Your task to perform on an android device: Open battery settings Image 0: 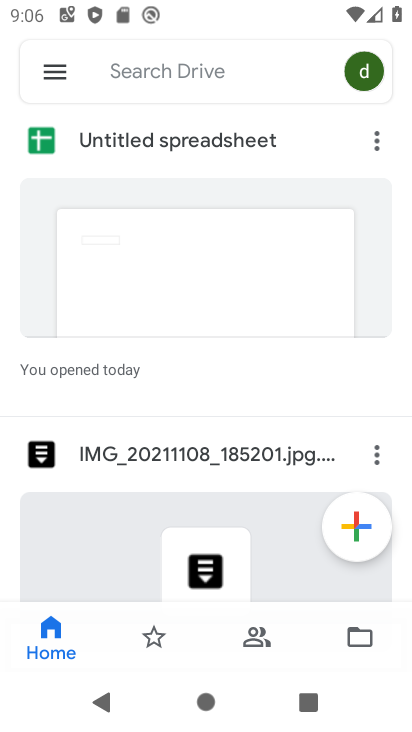
Step 0: press home button
Your task to perform on an android device: Open battery settings Image 1: 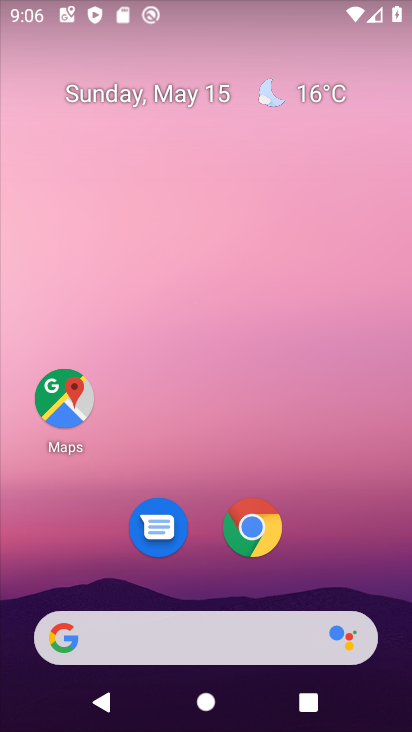
Step 1: drag from (359, 586) to (359, 16)
Your task to perform on an android device: Open battery settings Image 2: 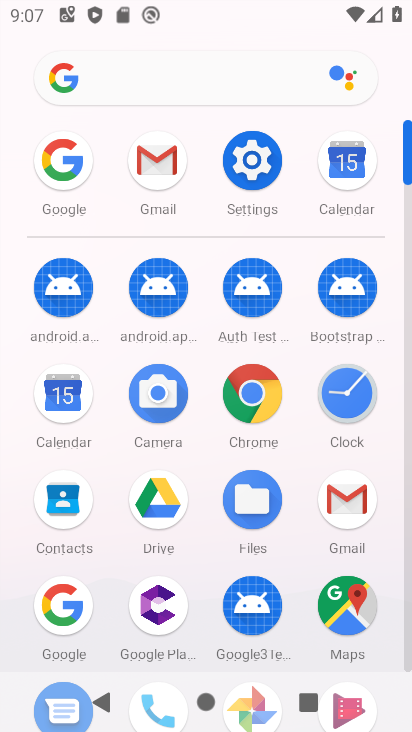
Step 2: click (257, 159)
Your task to perform on an android device: Open battery settings Image 3: 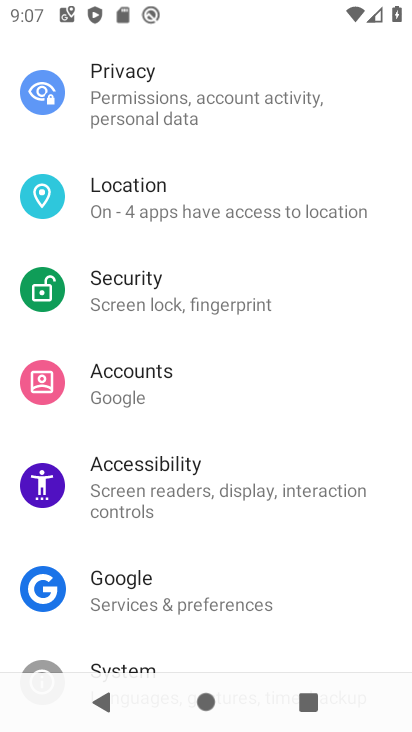
Step 3: drag from (298, 327) to (318, 555)
Your task to perform on an android device: Open battery settings Image 4: 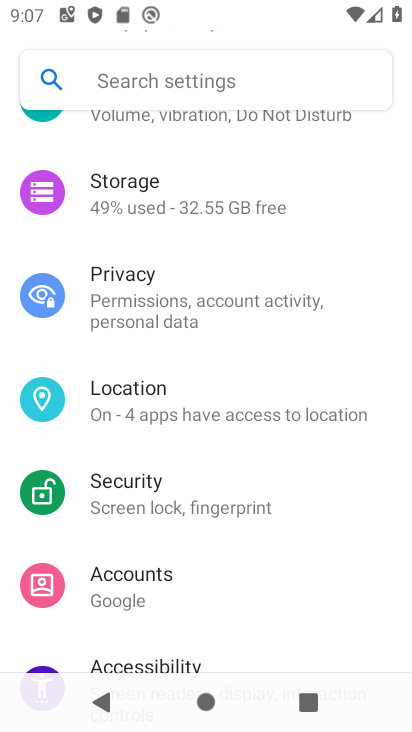
Step 4: drag from (313, 286) to (328, 555)
Your task to perform on an android device: Open battery settings Image 5: 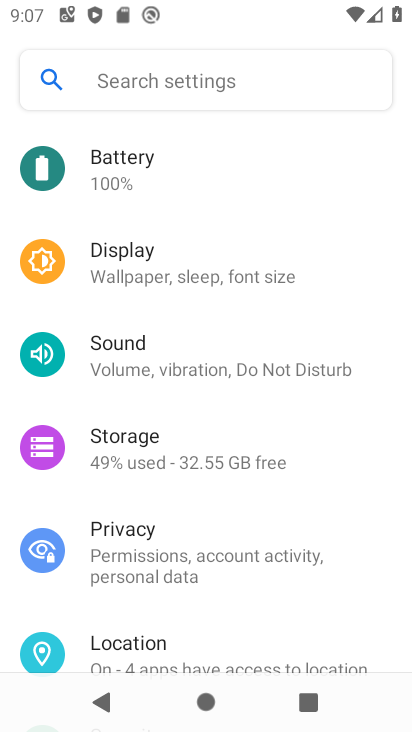
Step 5: click (136, 177)
Your task to perform on an android device: Open battery settings Image 6: 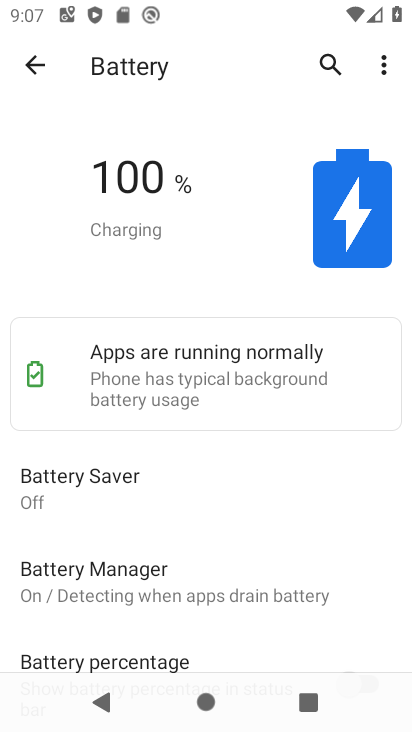
Step 6: task complete